Your task to perform on an android device: change the clock display to show seconds Image 0: 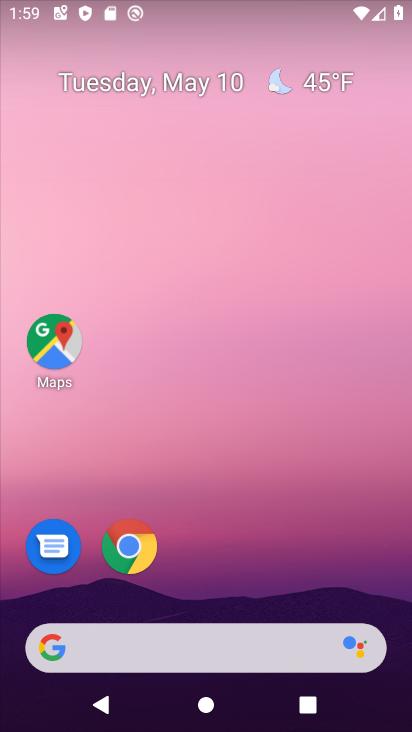
Step 0: drag from (244, 548) to (216, 107)
Your task to perform on an android device: change the clock display to show seconds Image 1: 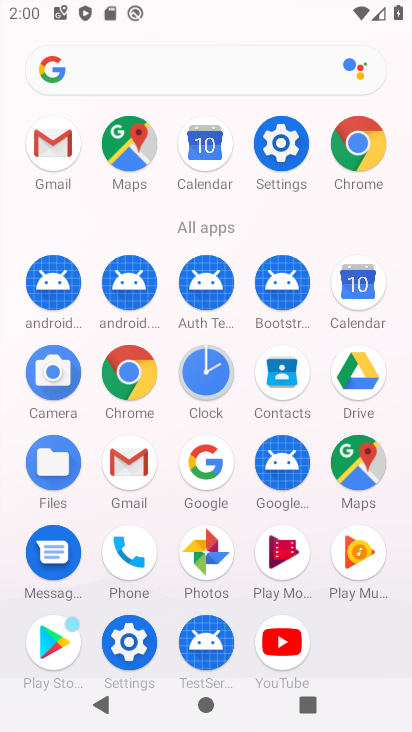
Step 1: click (223, 392)
Your task to perform on an android device: change the clock display to show seconds Image 2: 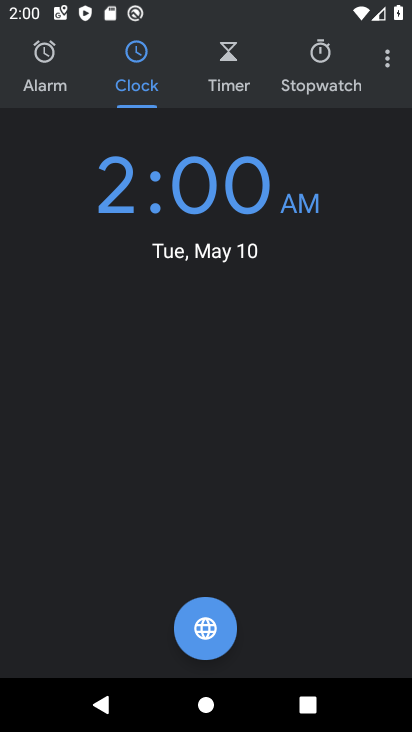
Step 2: click (381, 70)
Your task to perform on an android device: change the clock display to show seconds Image 3: 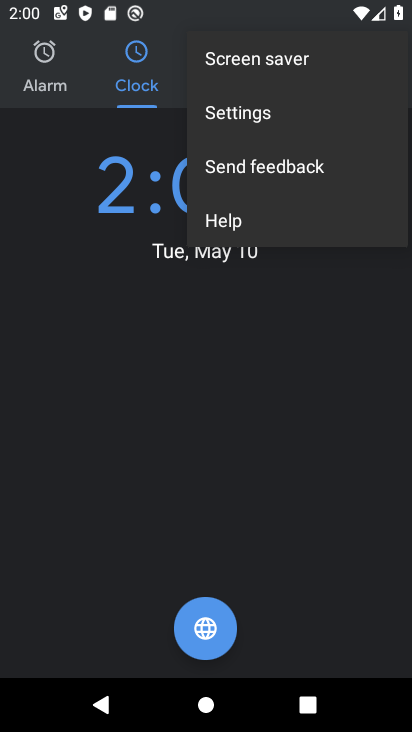
Step 3: click (260, 133)
Your task to perform on an android device: change the clock display to show seconds Image 4: 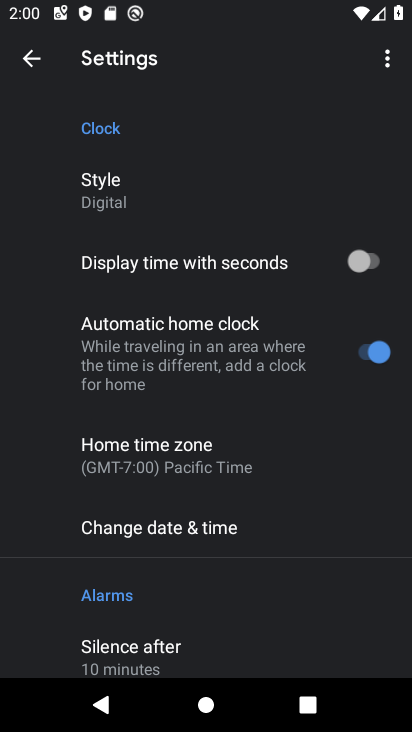
Step 4: click (369, 270)
Your task to perform on an android device: change the clock display to show seconds Image 5: 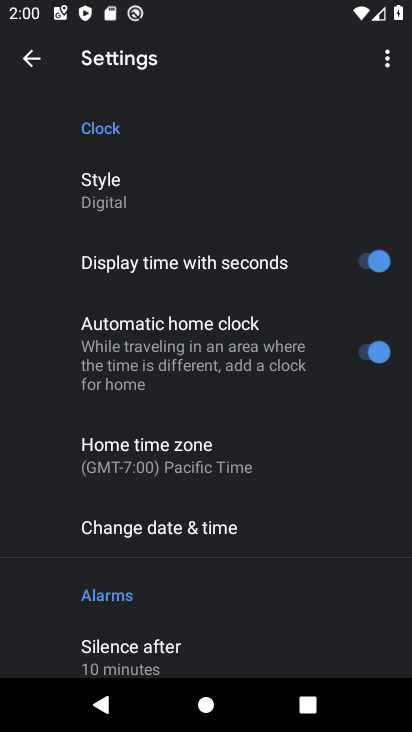
Step 5: task complete